Your task to perform on an android device: set the timer Image 0: 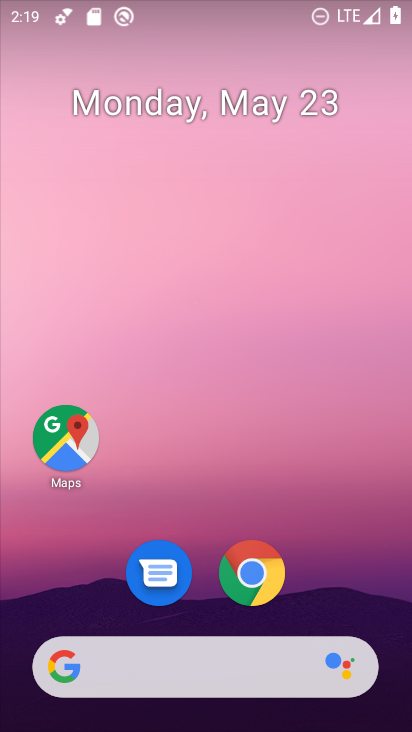
Step 0: drag from (341, 430) to (350, 151)
Your task to perform on an android device: set the timer Image 1: 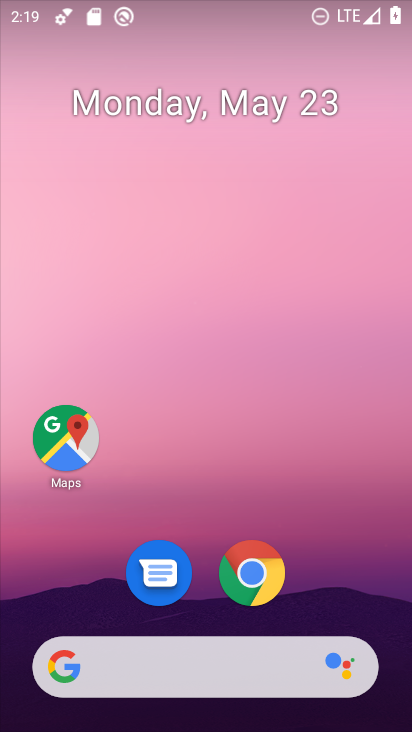
Step 1: drag from (300, 477) to (294, 89)
Your task to perform on an android device: set the timer Image 2: 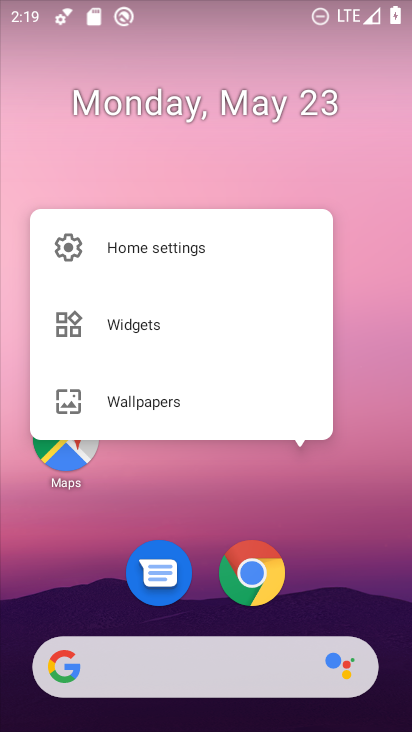
Step 2: click (318, 507)
Your task to perform on an android device: set the timer Image 3: 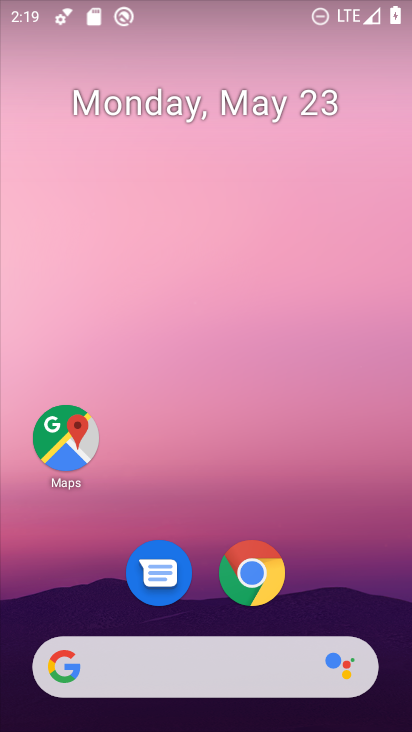
Step 3: drag from (346, 518) to (311, 113)
Your task to perform on an android device: set the timer Image 4: 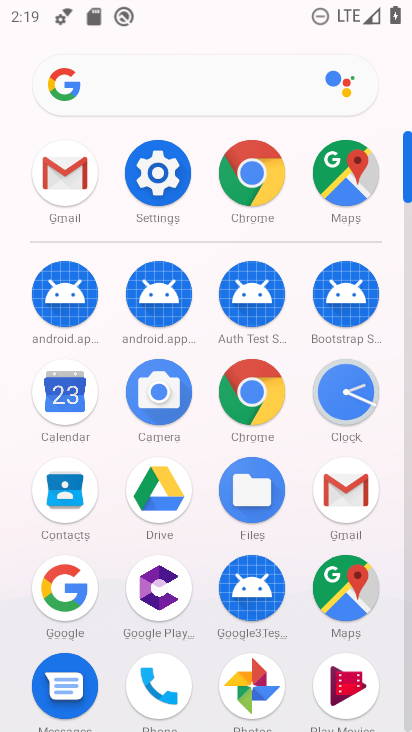
Step 4: click (357, 407)
Your task to perform on an android device: set the timer Image 5: 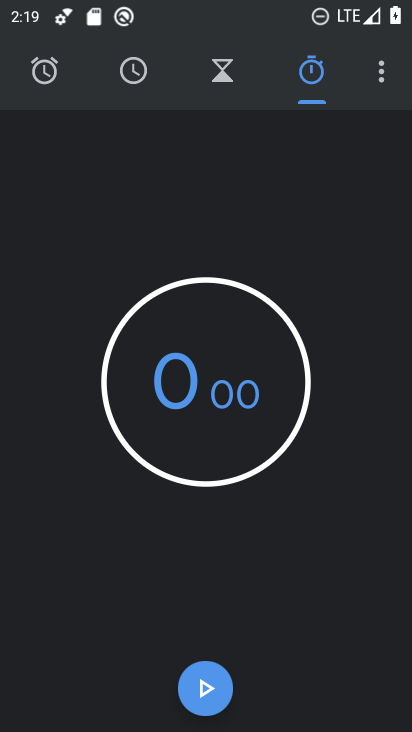
Step 5: click (390, 66)
Your task to perform on an android device: set the timer Image 6: 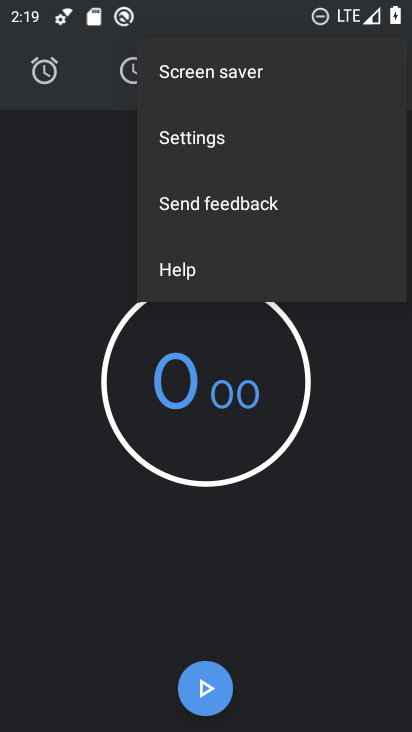
Step 6: click (261, 395)
Your task to perform on an android device: set the timer Image 7: 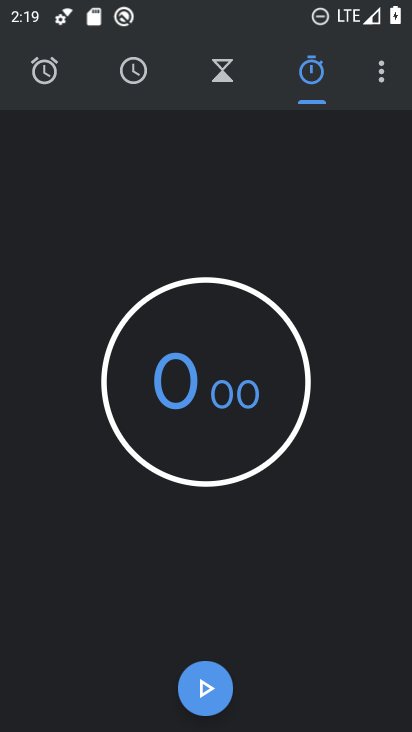
Step 7: click (237, 78)
Your task to perform on an android device: set the timer Image 8: 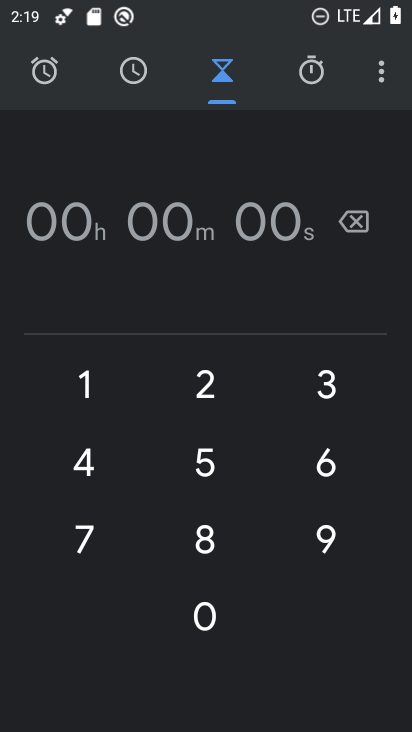
Step 8: click (226, 474)
Your task to perform on an android device: set the timer Image 9: 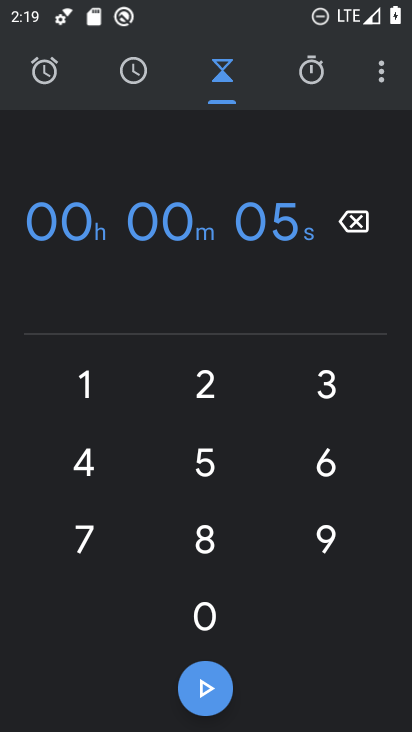
Step 9: task complete